Your task to perform on an android device: Go to privacy settings Image 0: 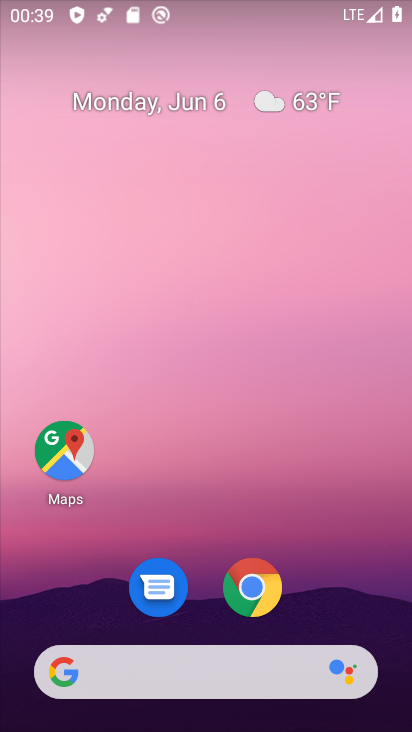
Step 0: drag from (354, 599) to (279, 174)
Your task to perform on an android device: Go to privacy settings Image 1: 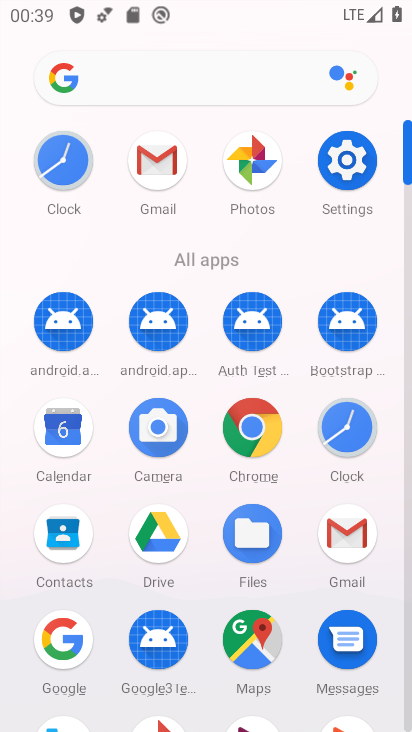
Step 1: click (331, 165)
Your task to perform on an android device: Go to privacy settings Image 2: 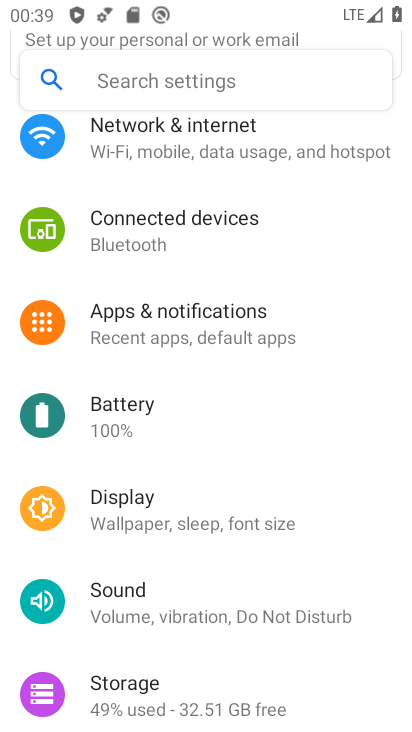
Step 2: drag from (242, 699) to (214, 337)
Your task to perform on an android device: Go to privacy settings Image 3: 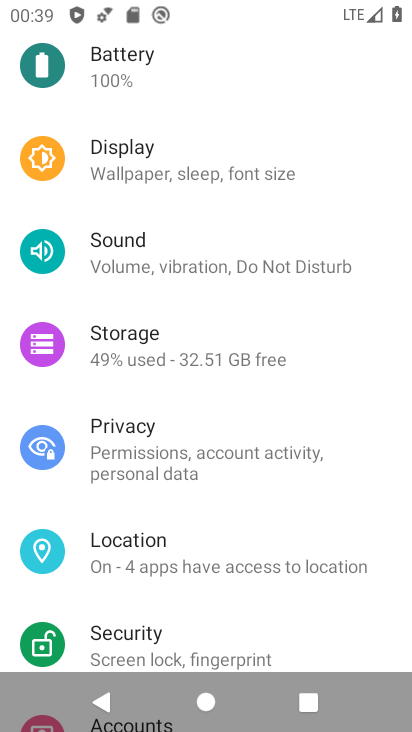
Step 3: click (217, 421)
Your task to perform on an android device: Go to privacy settings Image 4: 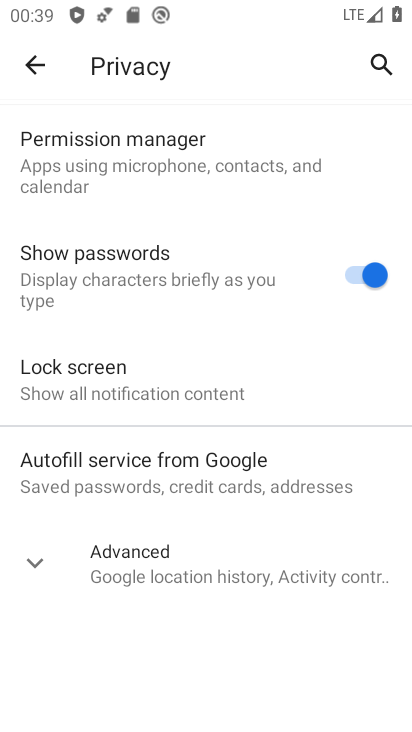
Step 4: task complete